Your task to perform on an android device: Open Youtube and go to the subscriptions tab Image 0: 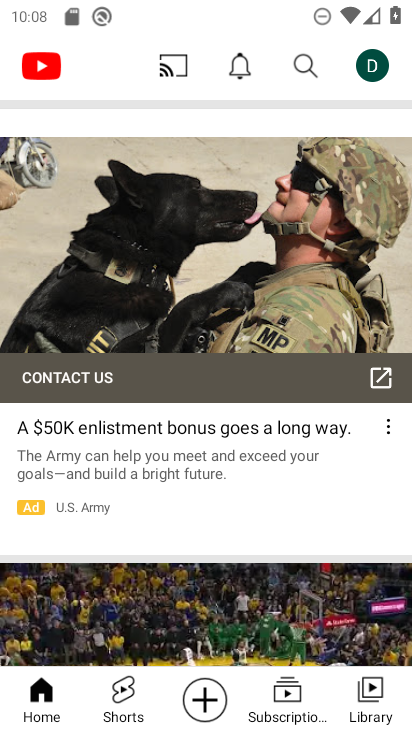
Step 0: press home button
Your task to perform on an android device: Open Youtube and go to the subscriptions tab Image 1: 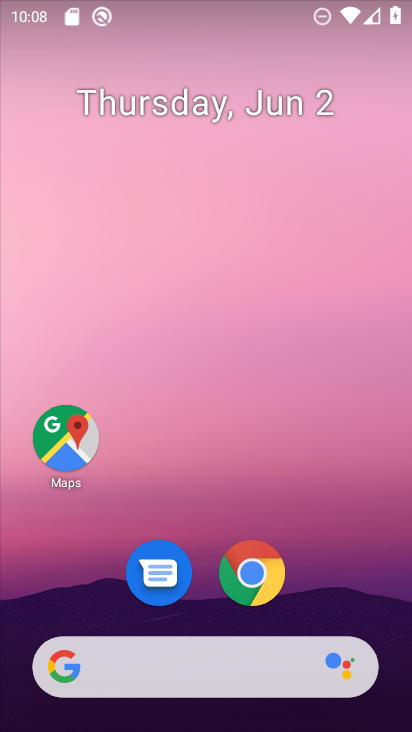
Step 1: drag from (328, 561) to (335, 154)
Your task to perform on an android device: Open Youtube and go to the subscriptions tab Image 2: 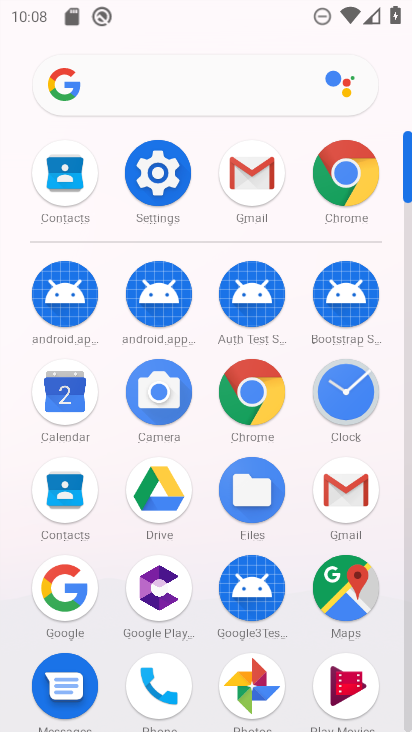
Step 2: drag from (208, 532) to (220, 174)
Your task to perform on an android device: Open Youtube and go to the subscriptions tab Image 3: 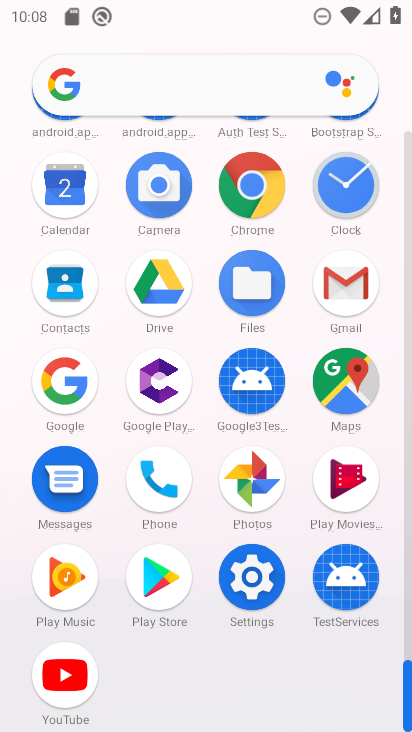
Step 3: click (64, 673)
Your task to perform on an android device: Open Youtube and go to the subscriptions tab Image 4: 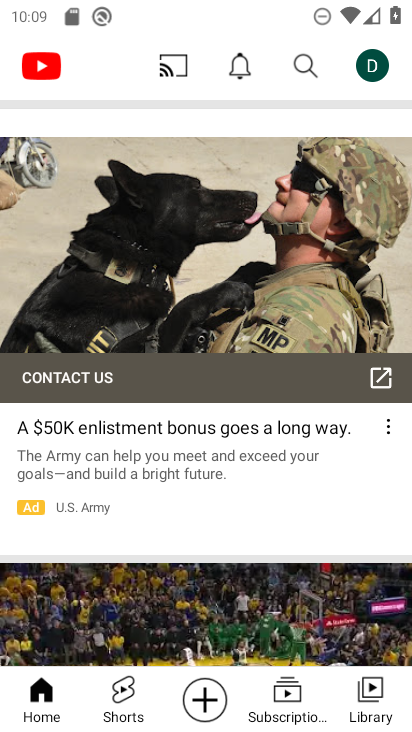
Step 4: click (305, 693)
Your task to perform on an android device: Open Youtube and go to the subscriptions tab Image 5: 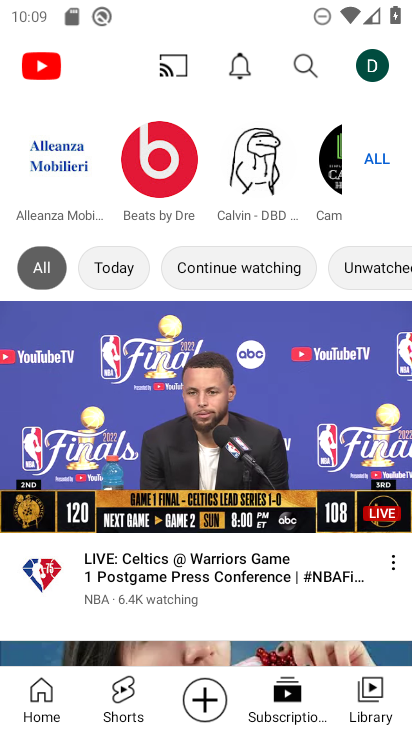
Step 5: task complete